Your task to perform on an android device: Search for pizza restaurants on Maps Image 0: 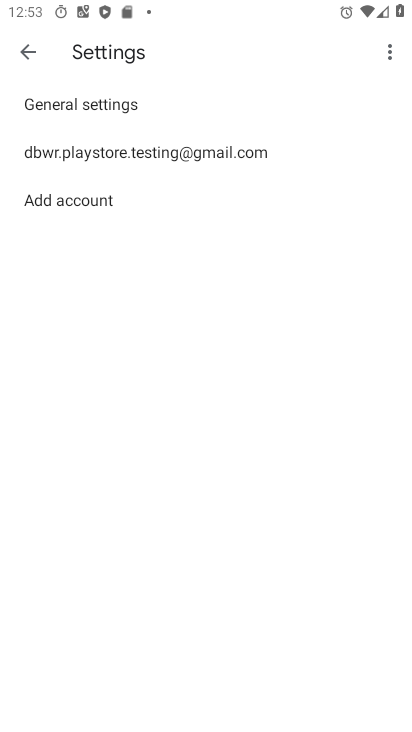
Step 0: press home button
Your task to perform on an android device: Search for pizza restaurants on Maps Image 1: 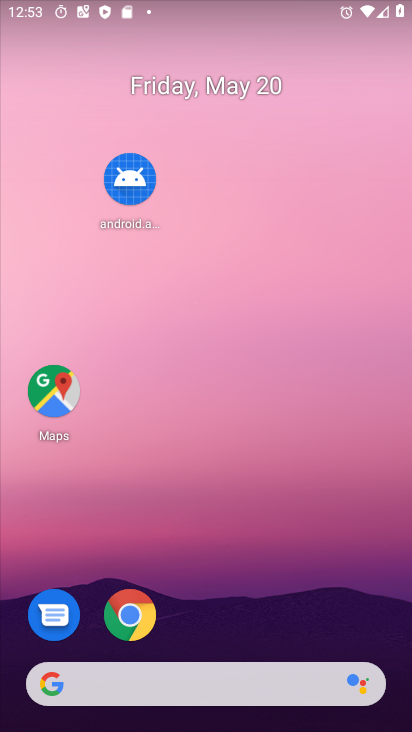
Step 1: click (68, 392)
Your task to perform on an android device: Search for pizza restaurants on Maps Image 2: 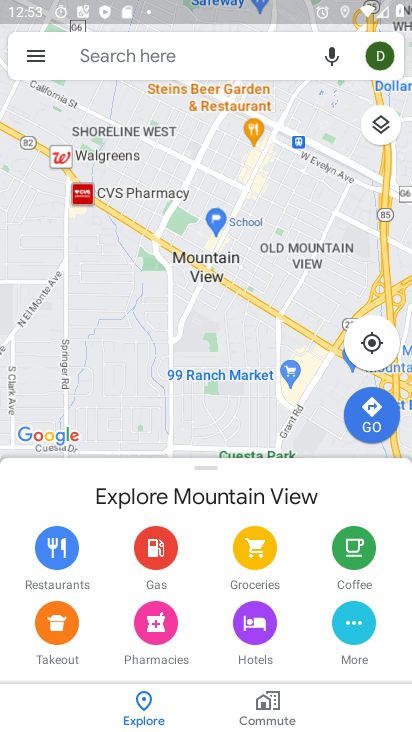
Step 2: click (163, 60)
Your task to perform on an android device: Search for pizza restaurants on Maps Image 3: 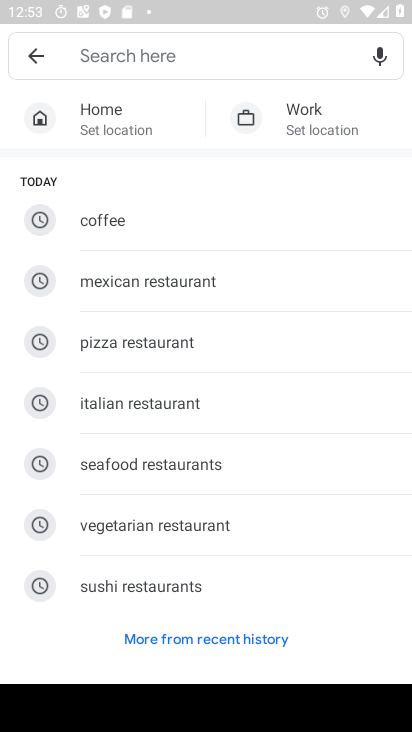
Step 3: click (169, 329)
Your task to perform on an android device: Search for pizza restaurants on Maps Image 4: 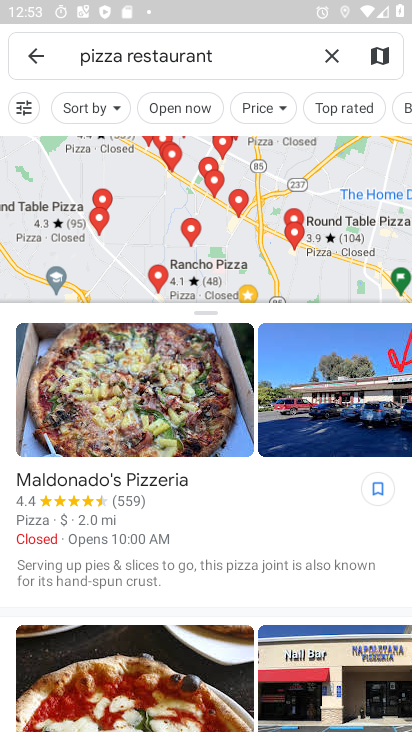
Step 4: task complete